Your task to perform on an android device: toggle sleep mode Image 0: 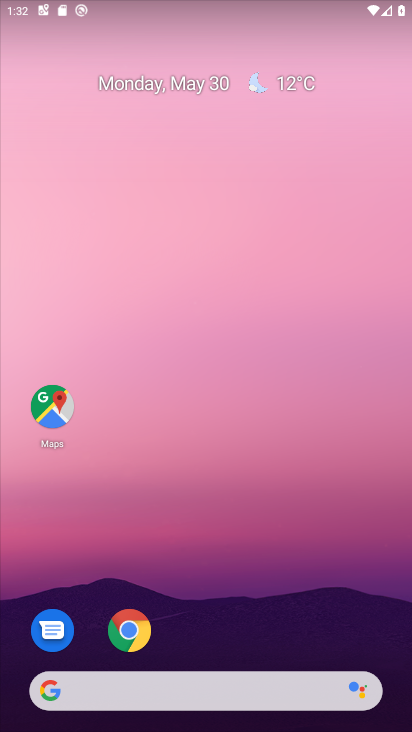
Step 0: click (262, 66)
Your task to perform on an android device: toggle sleep mode Image 1: 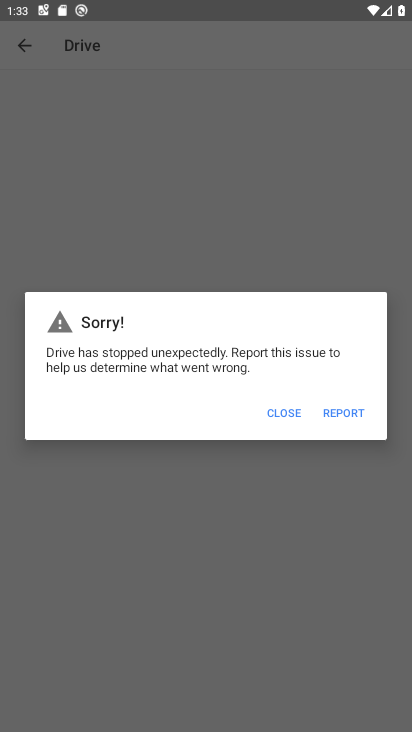
Step 1: press home button
Your task to perform on an android device: toggle sleep mode Image 2: 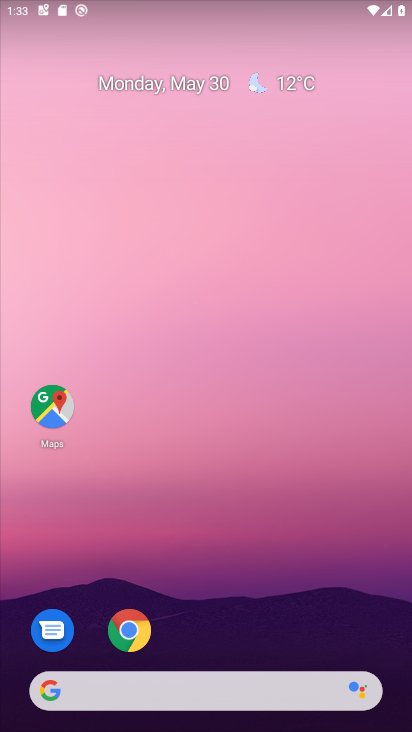
Step 2: drag from (218, 683) to (250, 91)
Your task to perform on an android device: toggle sleep mode Image 3: 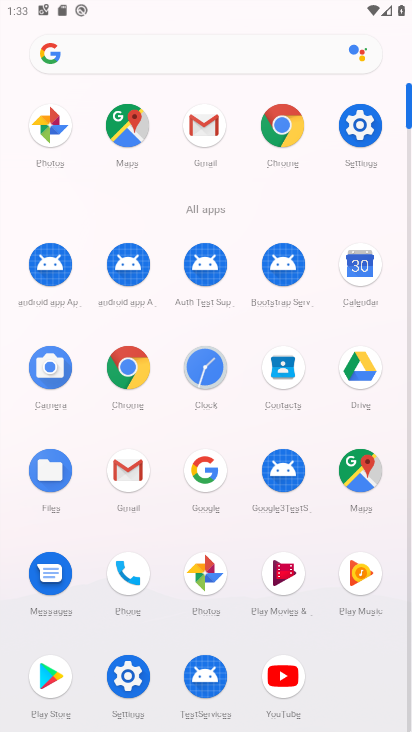
Step 3: click (378, 129)
Your task to perform on an android device: toggle sleep mode Image 4: 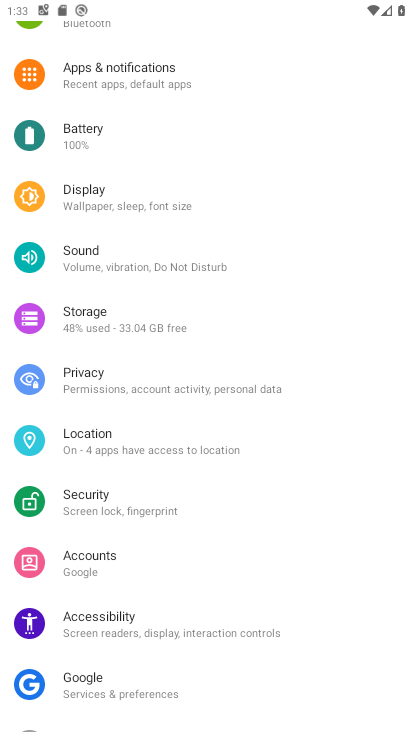
Step 4: click (116, 202)
Your task to perform on an android device: toggle sleep mode Image 5: 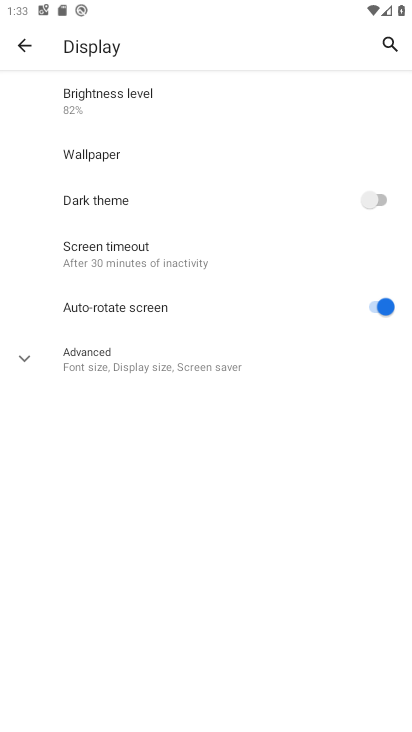
Step 5: click (201, 362)
Your task to perform on an android device: toggle sleep mode Image 6: 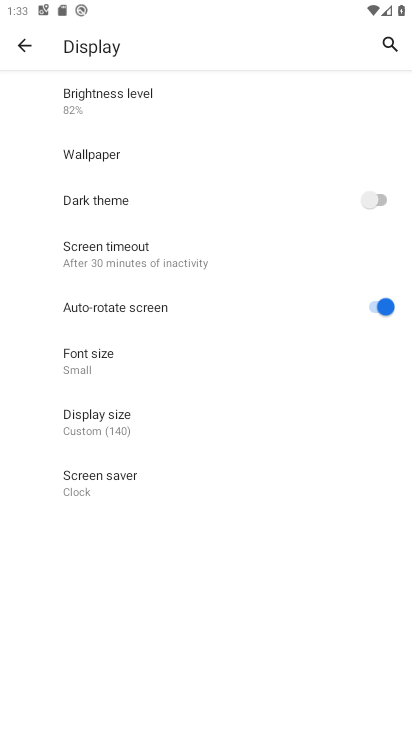
Step 6: task complete